Your task to perform on an android device: Search for razer blade on target, select the first entry, and add it to the cart. Image 0: 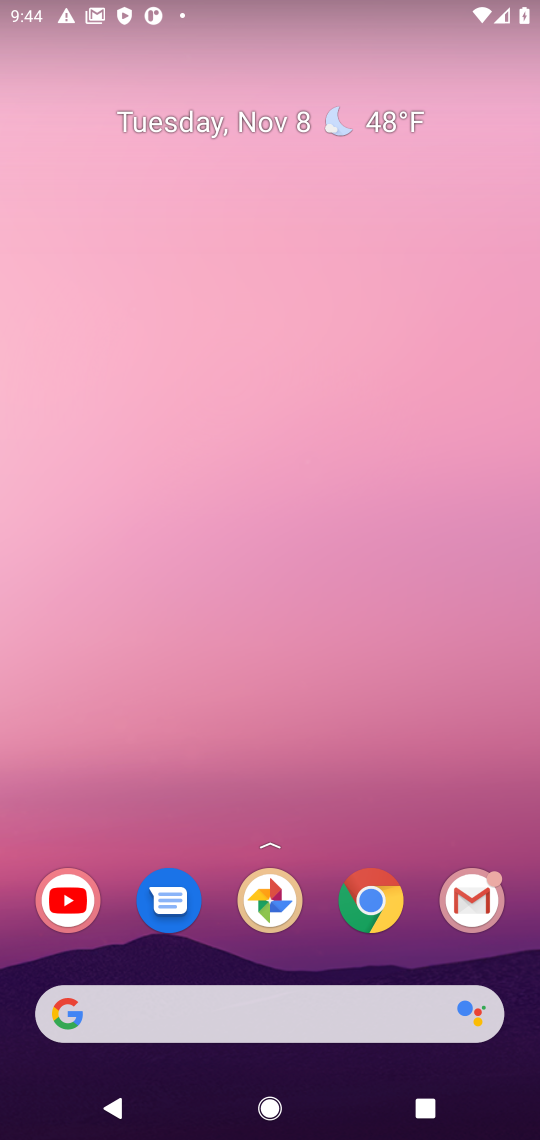
Step 0: click (361, 903)
Your task to perform on an android device: Search for razer blade on target, select the first entry, and add it to the cart. Image 1: 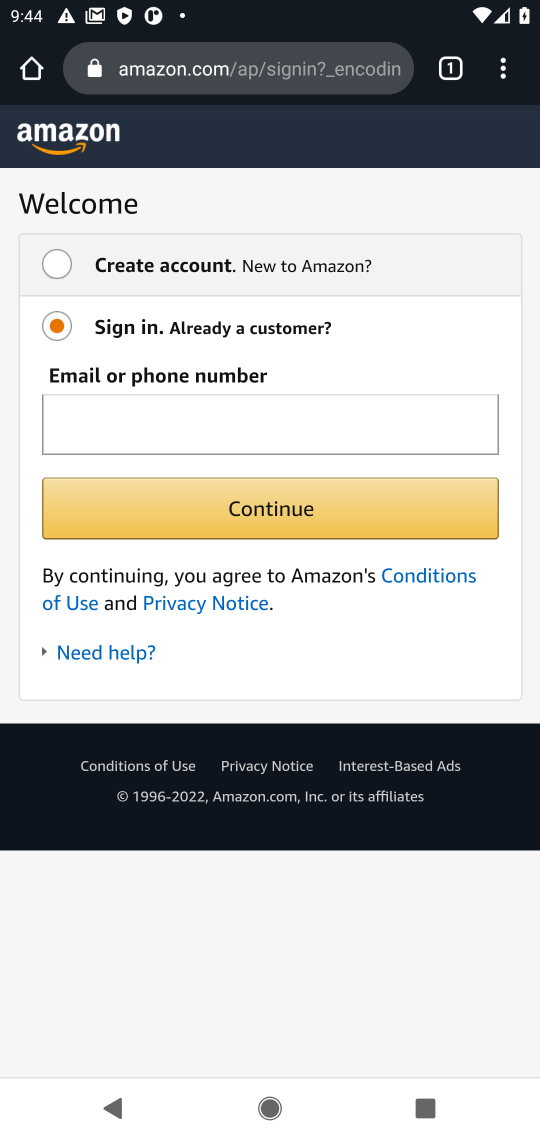
Step 1: click (257, 76)
Your task to perform on an android device: Search for razer blade on target, select the first entry, and add it to the cart. Image 2: 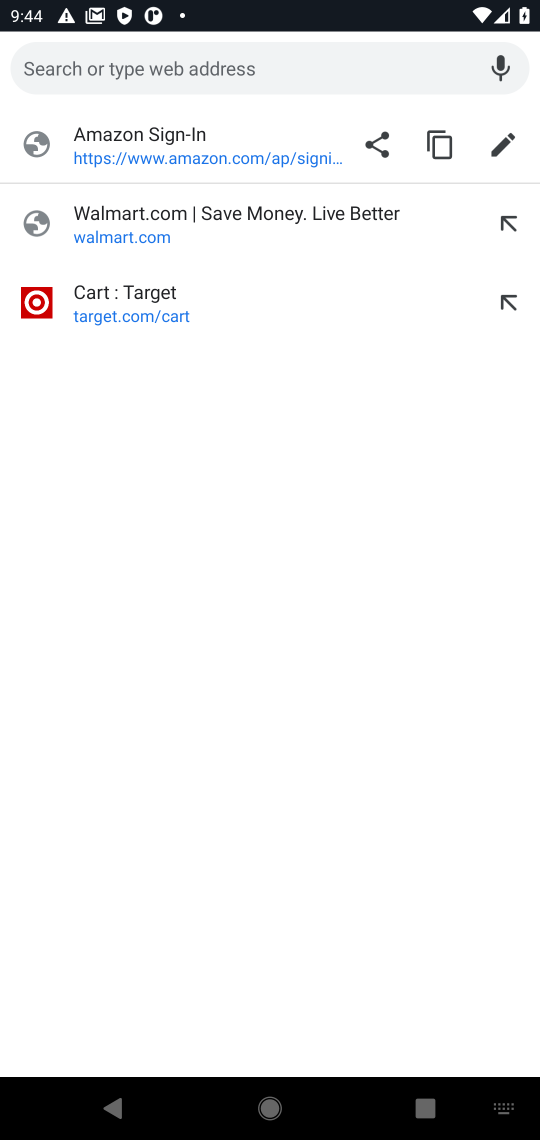
Step 2: click (141, 325)
Your task to perform on an android device: Search for razer blade on target, select the first entry, and add it to the cart. Image 3: 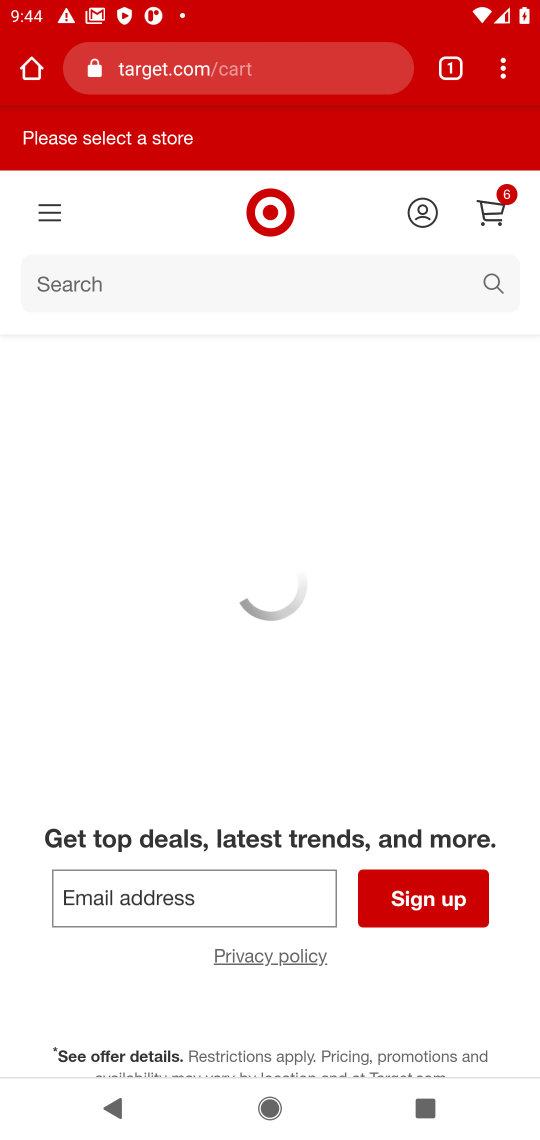
Step 3: click (121, 280)
Your task to perform on an android device: Search for razer blade on target, select the first entry, and add it to the cart. Image 4: 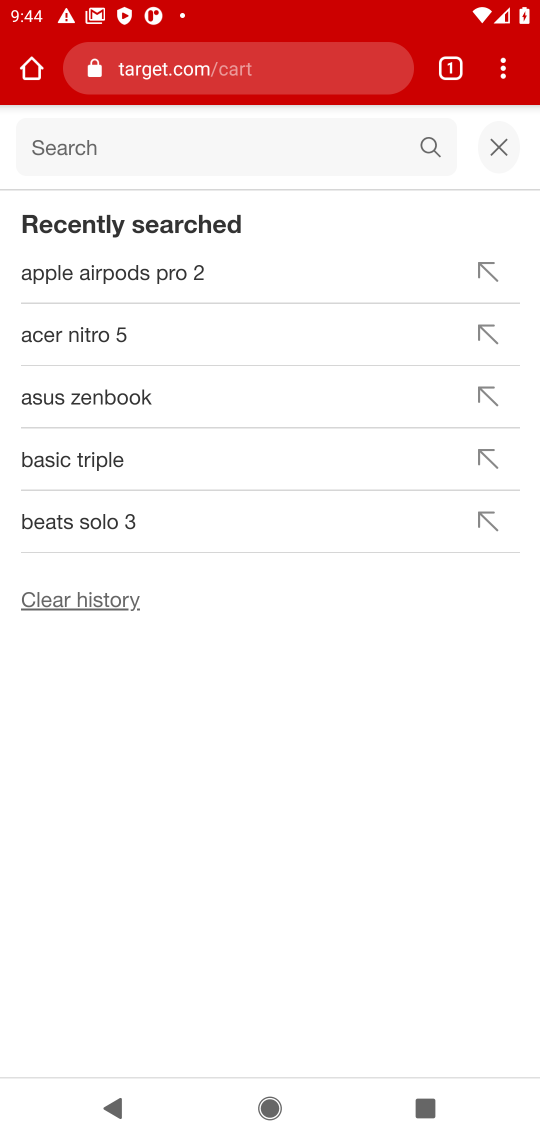
Step 4: click (200, 136)
Your task to perform on an android device: Search for razer blade on target, select the first entry, and add it to the cart. Image 5: 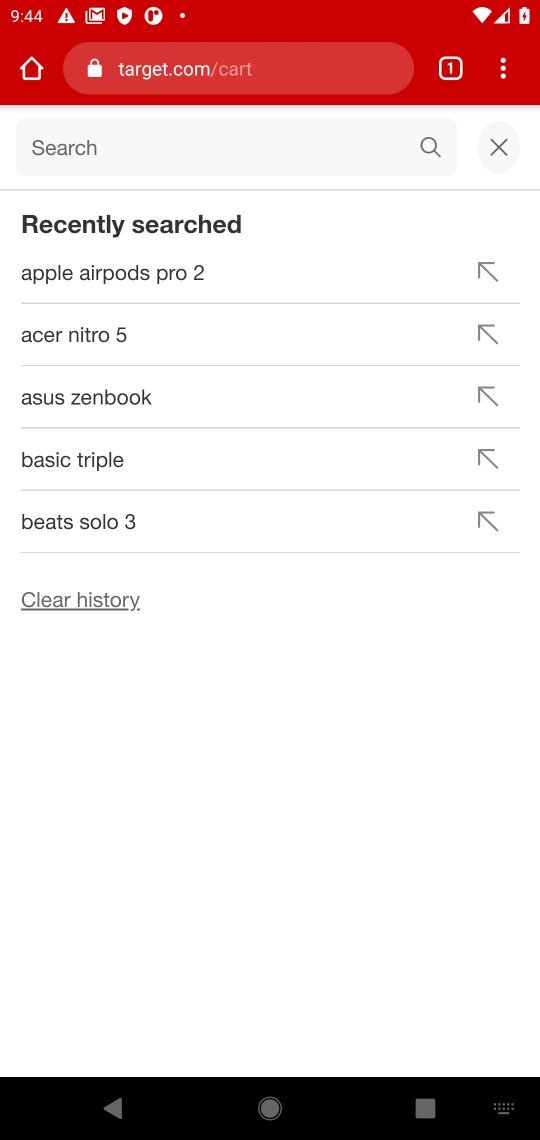
Step 5: type "razer blade"
Your task to perform on an android device: Search for razer blade on target, select the first entry, and add it to the cart. Image 6: 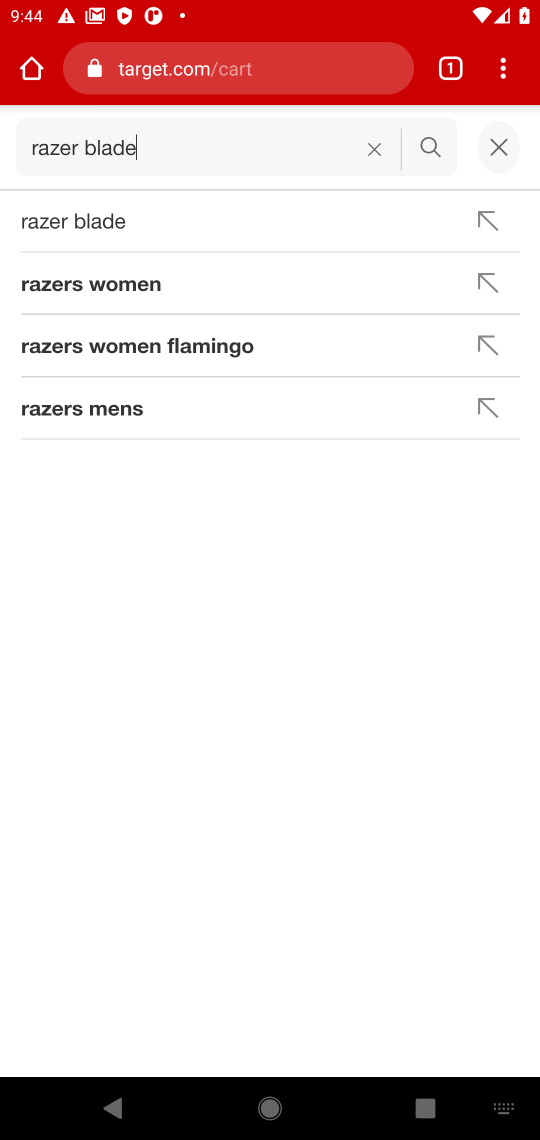
Step 6: click (108, 220)
Your task to perform on an android device: Search for razer blade on target, select the first entry, and add it to the cart. Image 7: 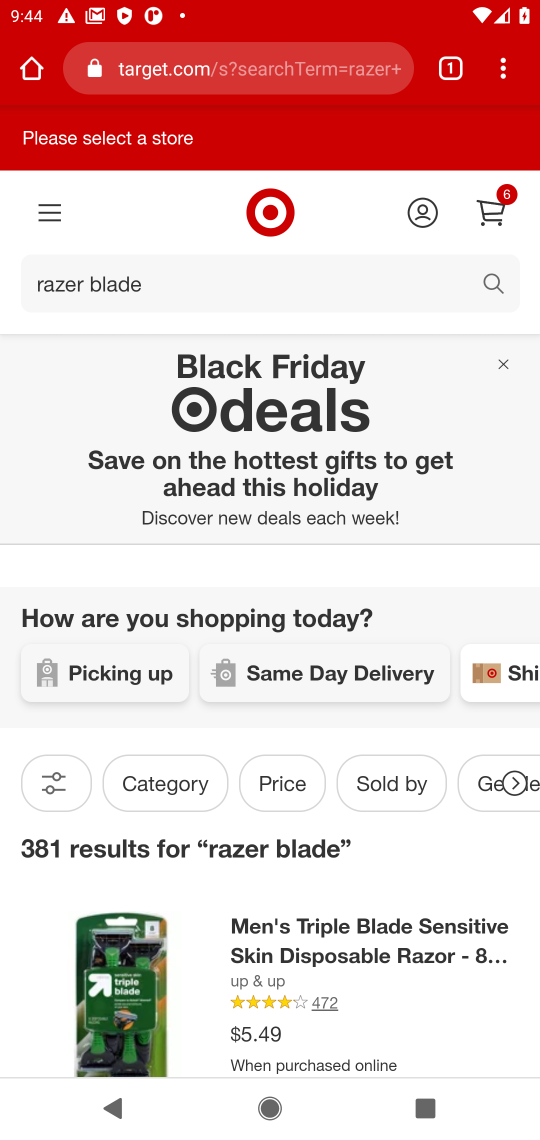
Step 7: drag from (232, 968) to (300, 340)
Your task to perform on an android device: Search for razer blade on target, select the first entry, and add it to the cart. Image 8: 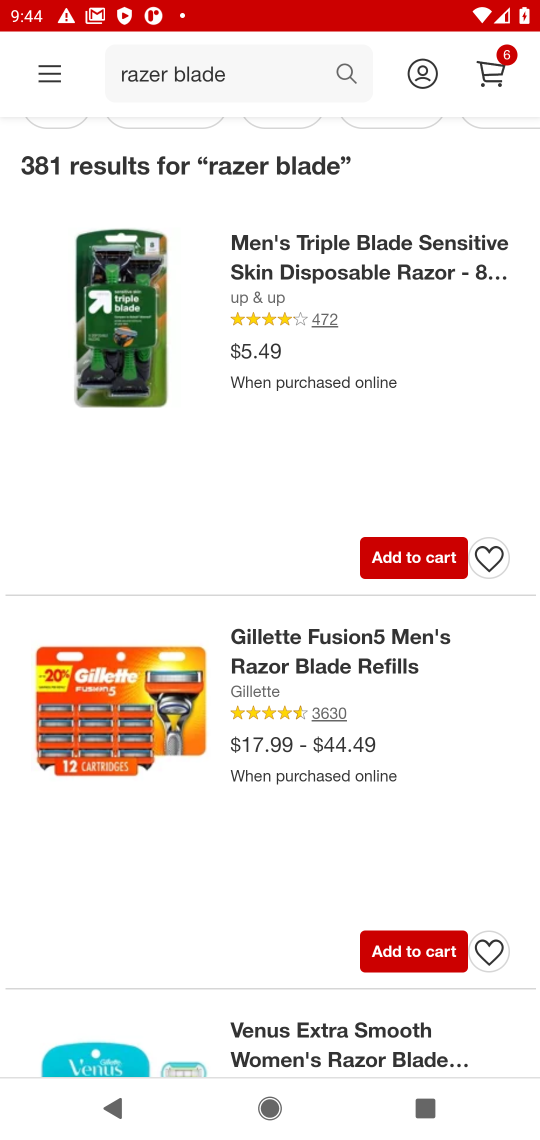
Step 8: click (148, 685)
Your task to perform on an android device: Search for razer blade on target, select the first entry, and add it to the cart. Image 9: 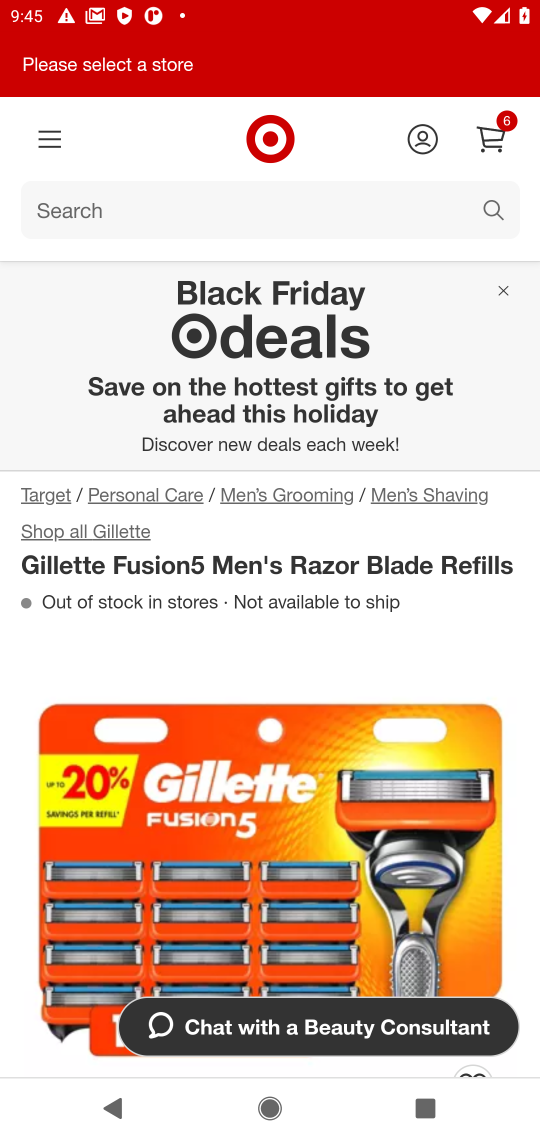
Step 9: drag from (220, 817) to (223, 642)
Your task to perform on an android device: Search for razer blade on target, select the first entry, and add it to the cart. Image 10: 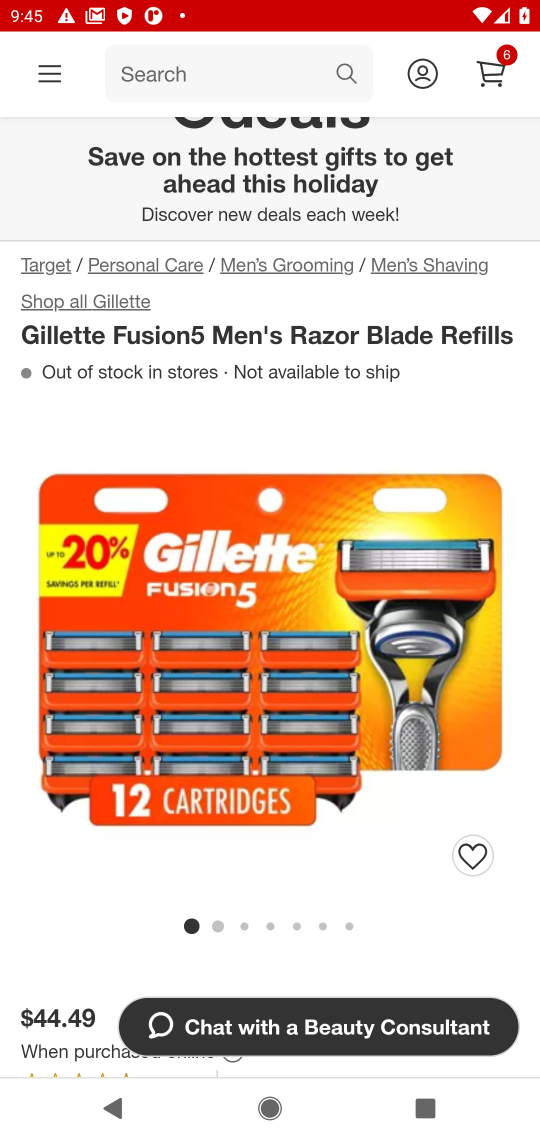
Step 10: drag from (224, 826) to (197, 430)
Your task to perform on an android device: Search for razer blade on target, select the first entry, and add it to the cart. Image 11: 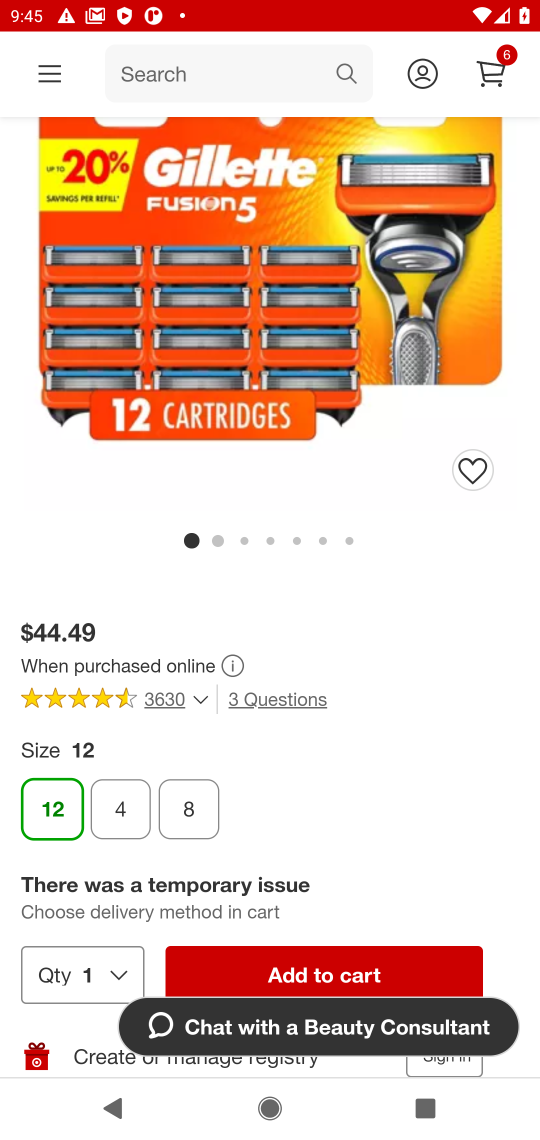
Step 11: drag from (266, 837) to (279, 488)
Your task to perform on an android device: Search for razer blade on target, select the first entry, and add it to the cart. Image 12: 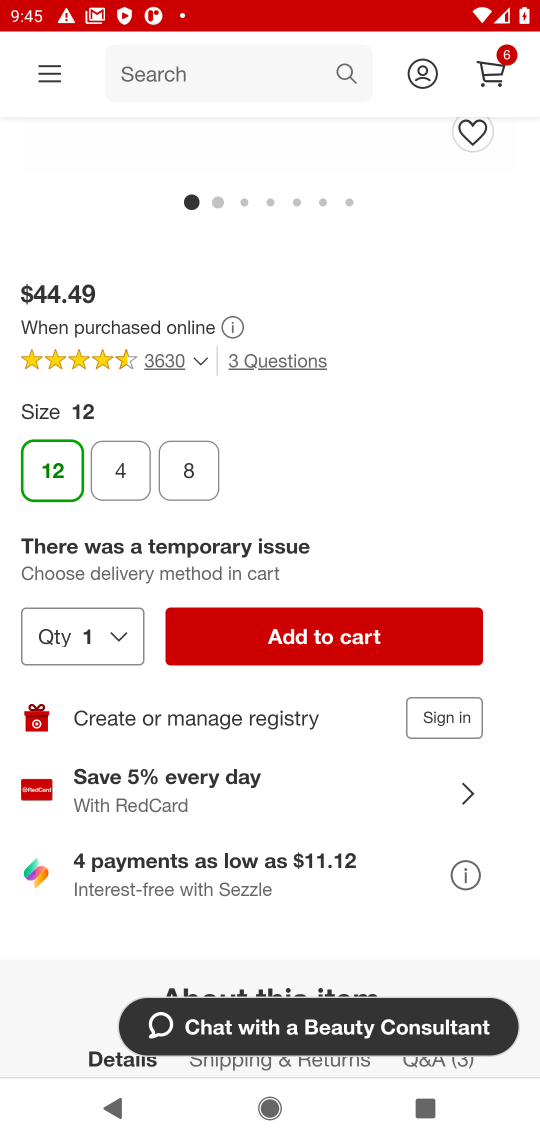
Step 12: click (314, 638)
Your task to perform on an android device: Search for razer blade on target, select the first entry, and add it to the cart. Image 13: 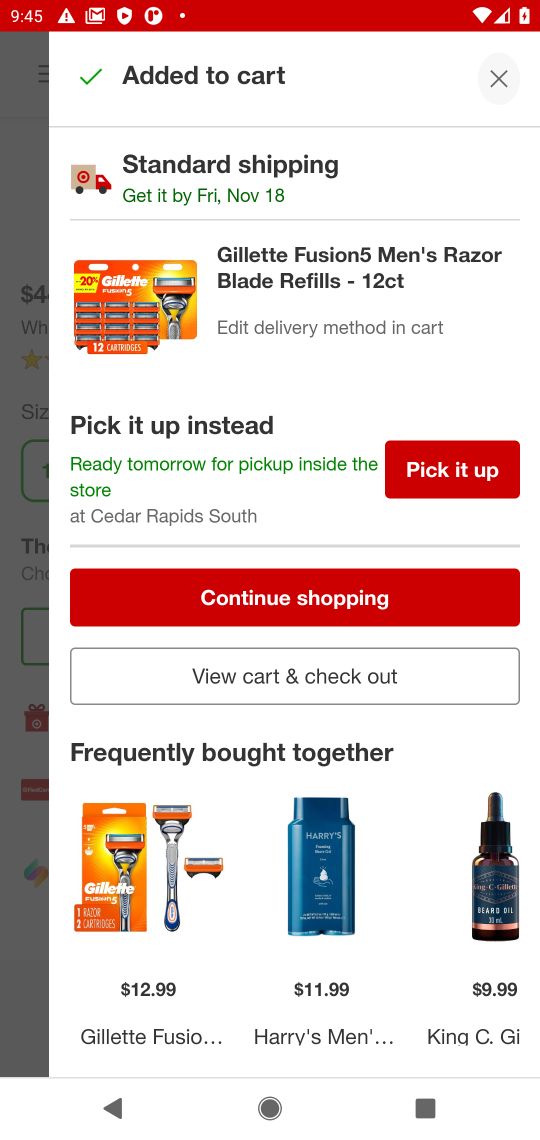
Step 13: click (314, 673)
Your task to perform on an android device: Search for razer blade on target, select the first entry, and add it to the cart. Image 14: 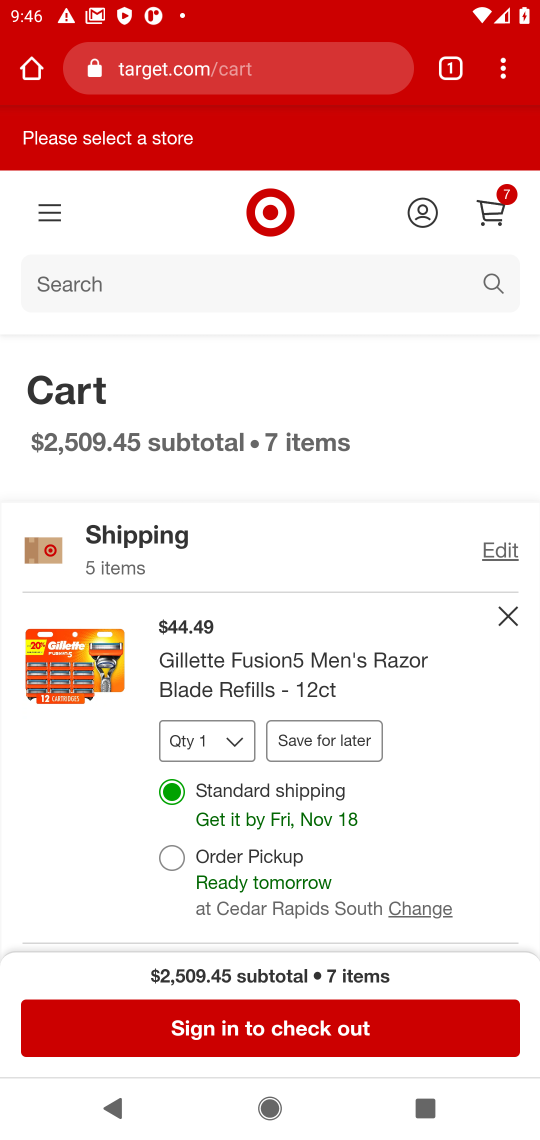
Step 14: task complete